Your task to perform on an android device: snooze an email in the gmail app Image 0: 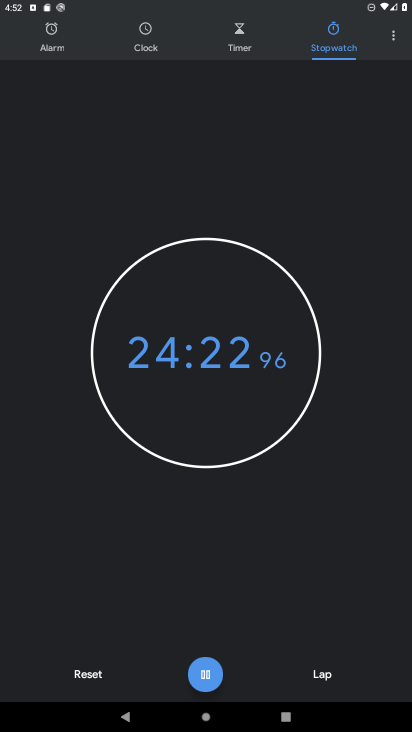
Step 0: press home button
Your task to perform on an android device: snooze an email in the gmail app Image 1: 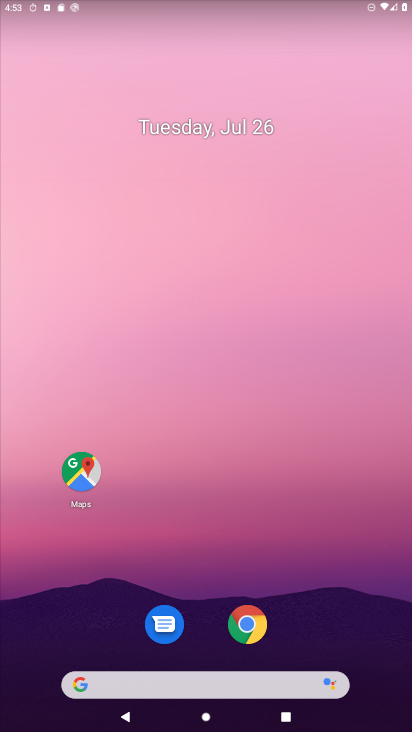
Step 1: drag from (260, 683) to (289, 14)
Your task to perform on an android device: snooze an email in the gmail app Image 2: 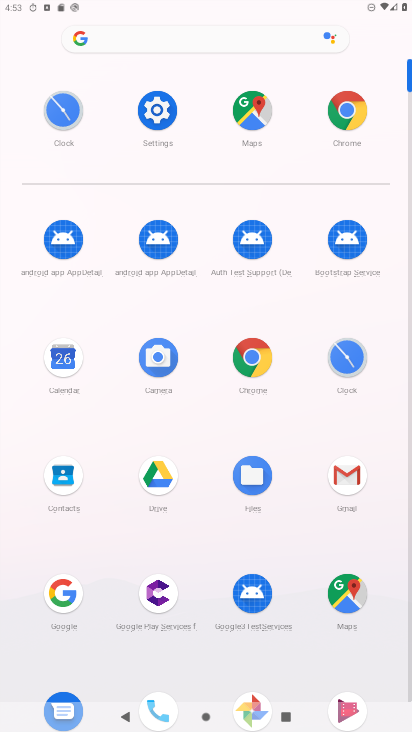
Step 2: click (336, 484)
Your task to perform on an android device: snooze an email in the gmail app Image 3: 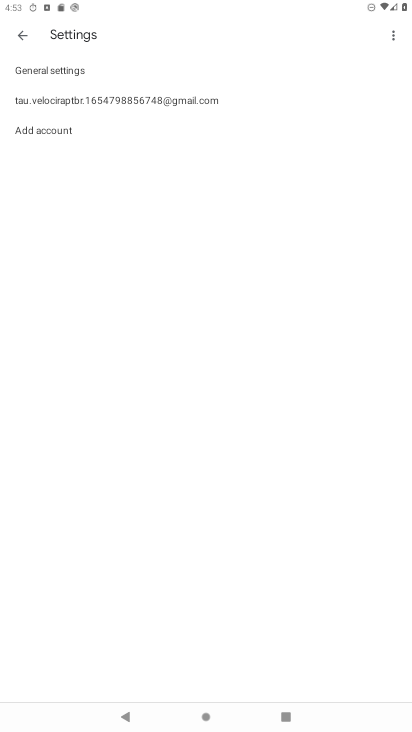
Step 3: press back button
Your task to perform on an android device: snooze an email in the gmail app Image 4: 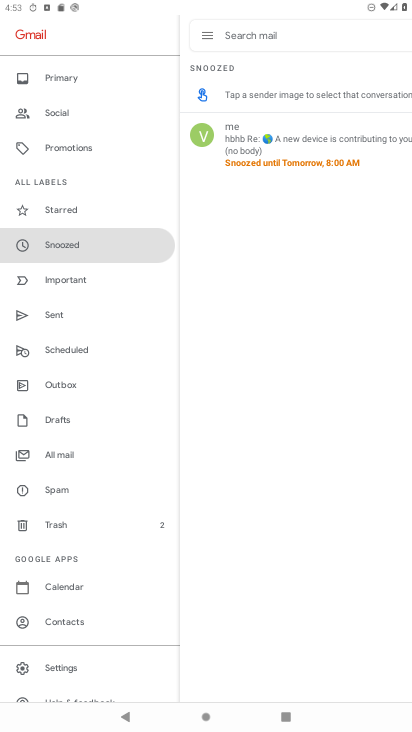
Step 4: click (89, 252)
Your task to perform on an android device: snooze an email in the gmail app Image 5: 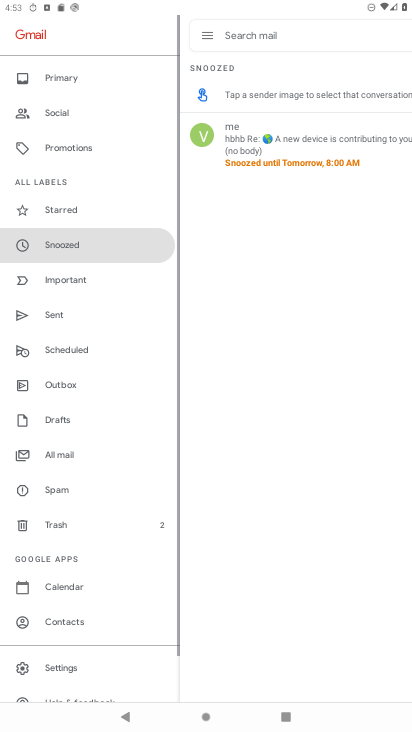
Step 5: task complete